Your task to perform on an android device: Go to Maps Image 0: 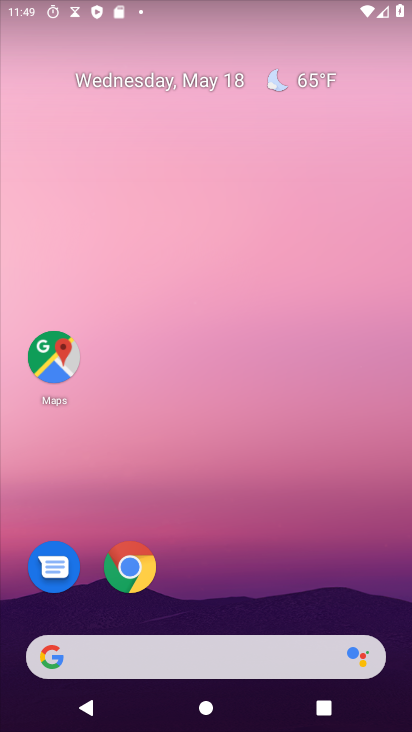
Step 0: click (46, 364)
Your task to perform on an android device: Go to Maps Image 1: 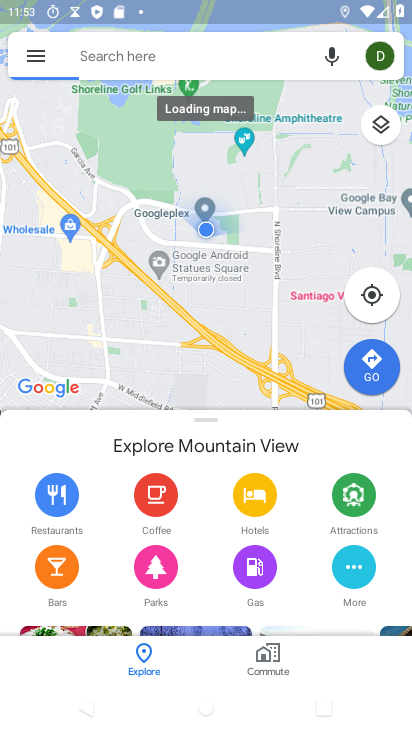
Step 1: task complete